Your task to perform on an android device: delete browsing data in the chrome app Image 0: 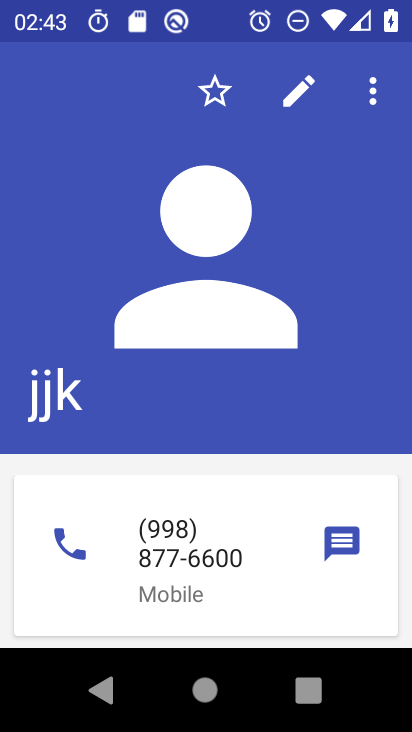
Step 0: press home button
Your task to perform on an android device: delete browsing data in the chrome app Image 1: 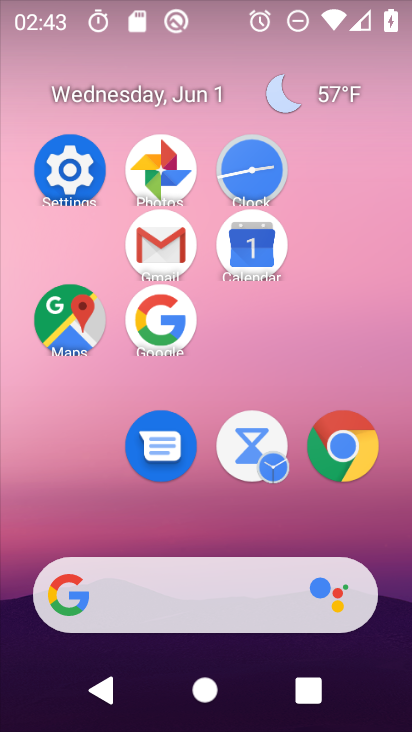
Step 1: click (358, 443)
Your task to perform on an android device: delete browsing data in the chrome app Image 2: 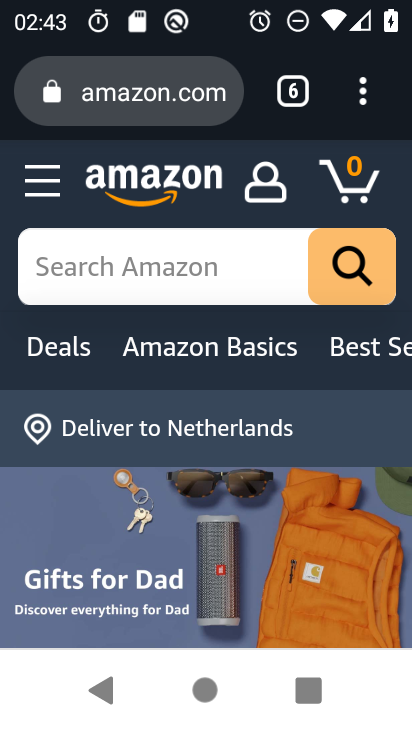
Step 2: click (355, 98)
Your task to perform on an android device: delete browsing data in the chrome app Image 3: 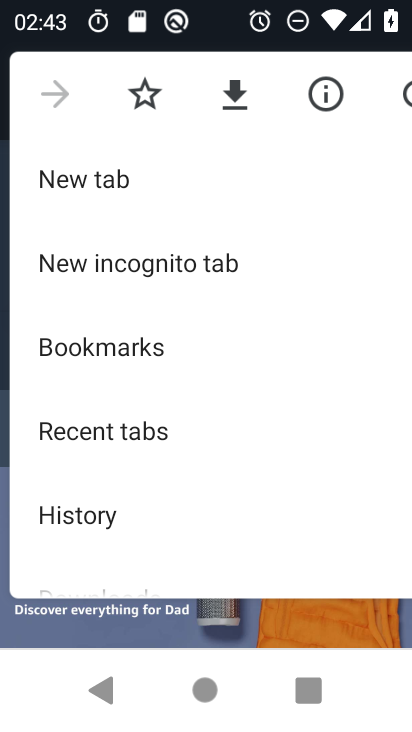
Step 3: drag from (177, 491) to (135, 158)
Your task to perform on an android device: delete browsing data in the chrome app Image 4: 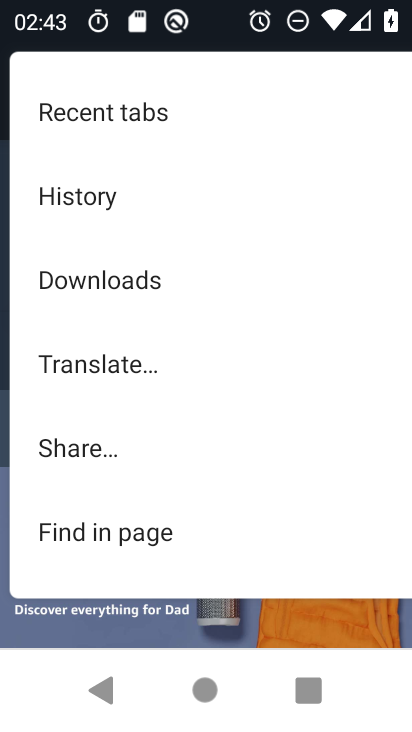
Step 4: drag from (170, 476) to (166, 151)
Your task to perform on an android device: delete browsing data in the chrome app Image 5: 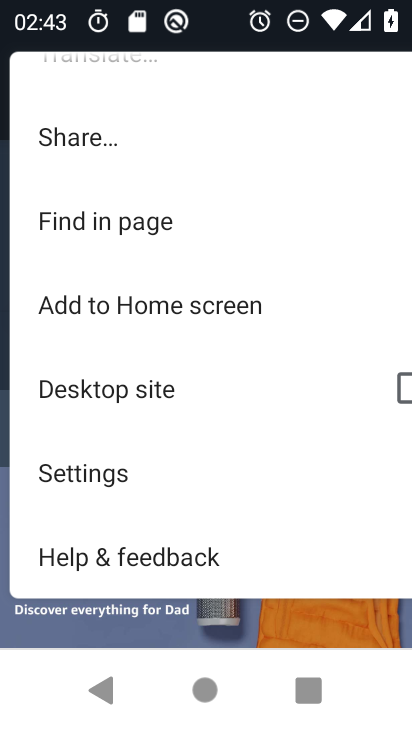
Step 5: click (173, 493)
Your task to perform on an android device: delete browsing data in the chrome app Image 6: 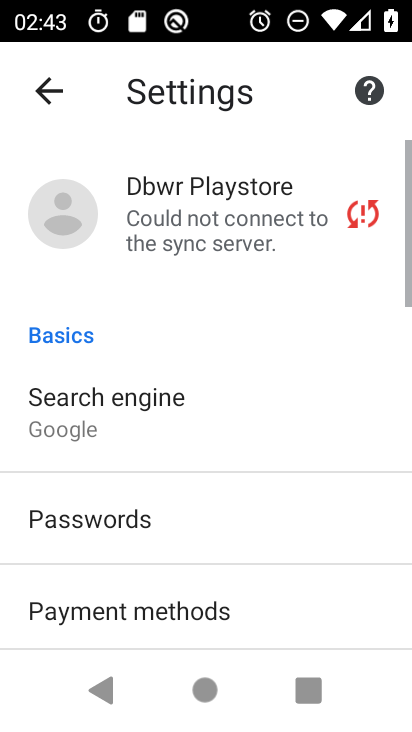
Step 6: drag from (171, 491) to (180, 181)
Your task to perform on an android device: delete browsing data in the chrome app Image 7: 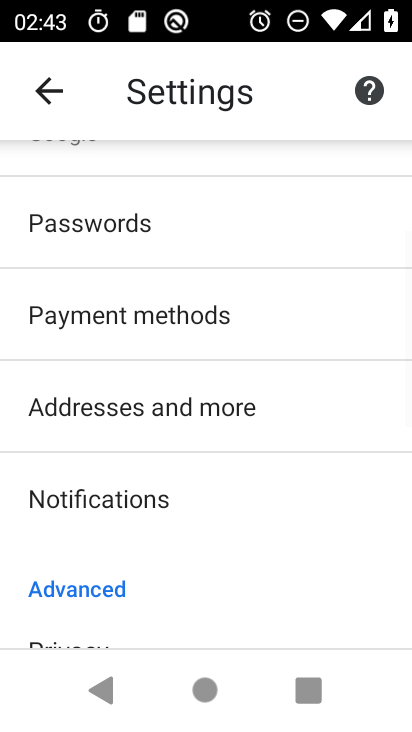
Step 7: drag from (243, 596) to (239, 214)
Your task to perform on an android device: delete browsing data in the chrome app Image 8: 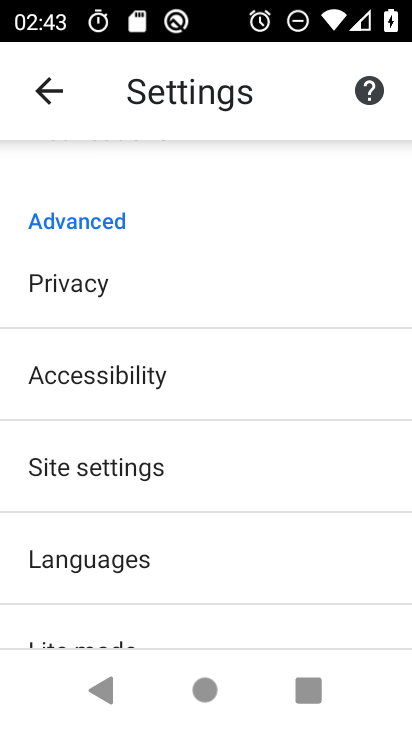
Step 8: drag from (237, 562) to (250, 195)
Your task to perform on an android device: delete browsing data in the chrome app Image 9: 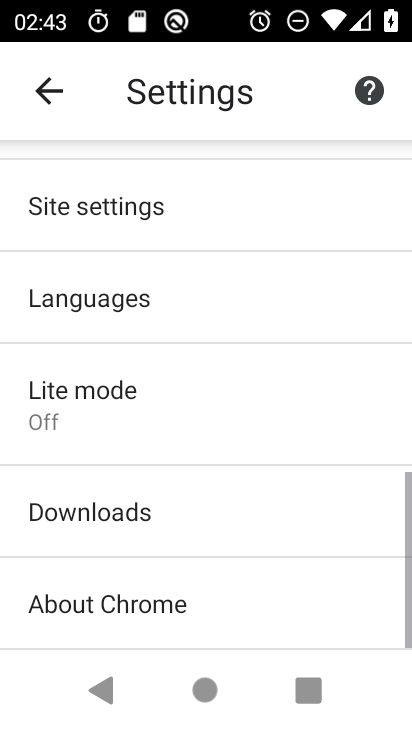
Step 9: drag from (244, 525) to (254, 213)
Your task to perform on an android device: delete browsing data in the chrome app Image 10: 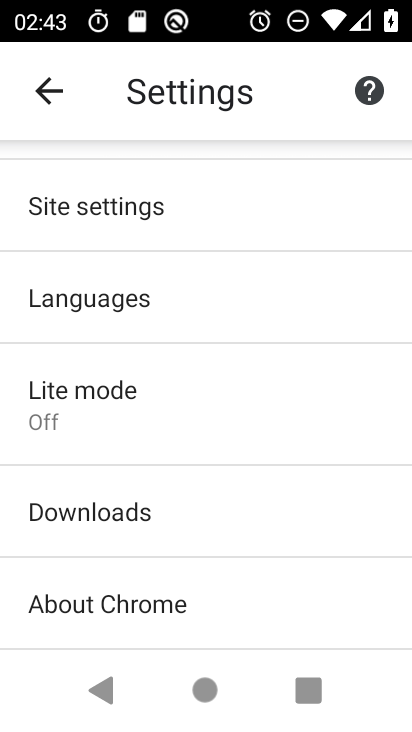
Step 10: drag from (243, 237) to (235, 626)
Your task to perform on an android device: delete browsing data in the chrome app Image 11: 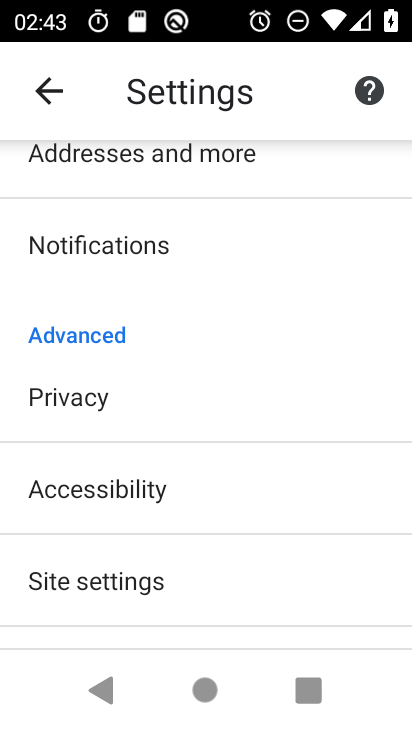
Step 11: click (165, 386)
Your task to perform on an android device: delete browsing data in the chrome app Image 12: 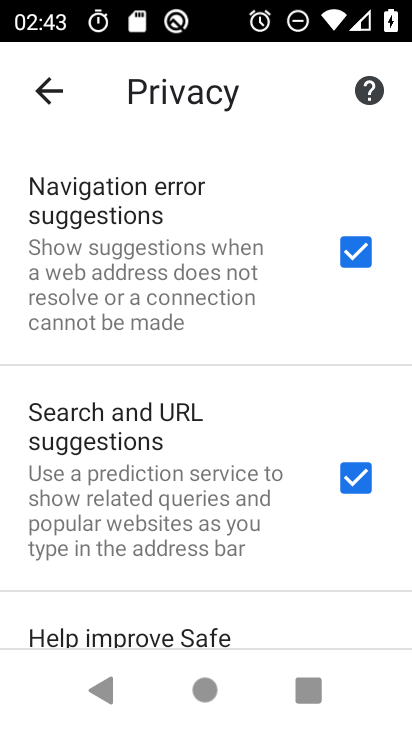
Step 12: drag from (253, 581) to (214, 360)
Your task to perform on an android device: delete browsing data in the chrome app Image 13: 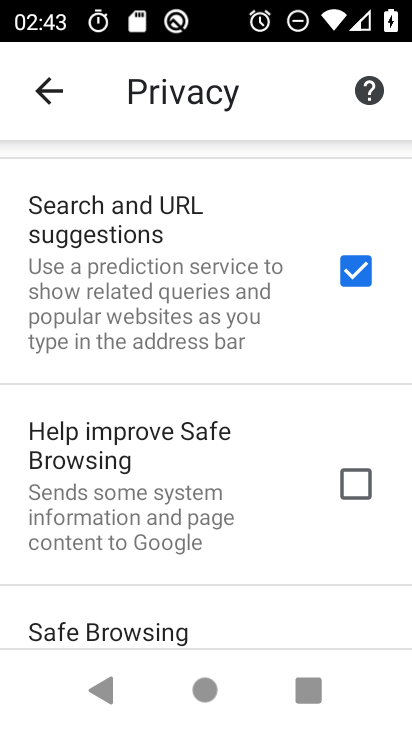
Step 13: drag from (188, 552) to (241, 281)
Your task to perform on an android device: delete browsing data in the chrome app Image 14: 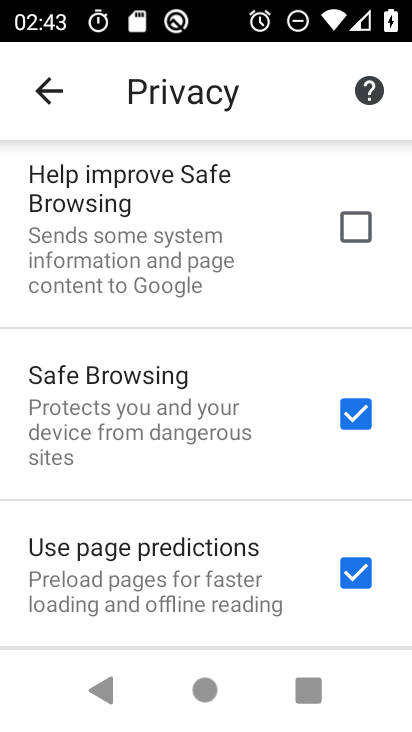
Step 14: drag from (225, 623) to (245, 334)
Your task to perform on an android device: delete browsing data in the chrome app Image 15: 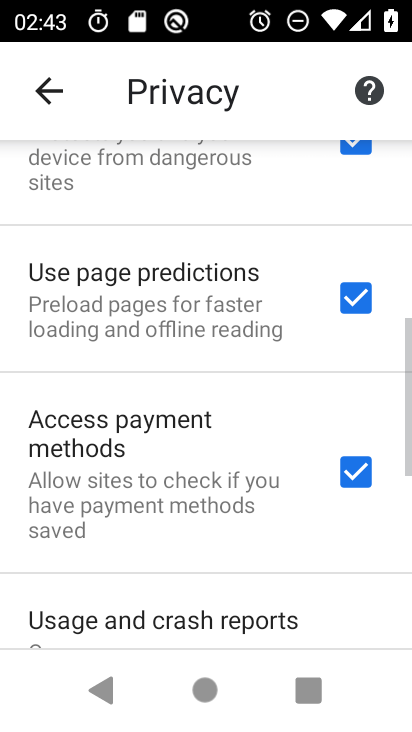
Step 15: click (288, 308)
Your task to perform on an android device: delete browsing data in the chrome app Image 16: 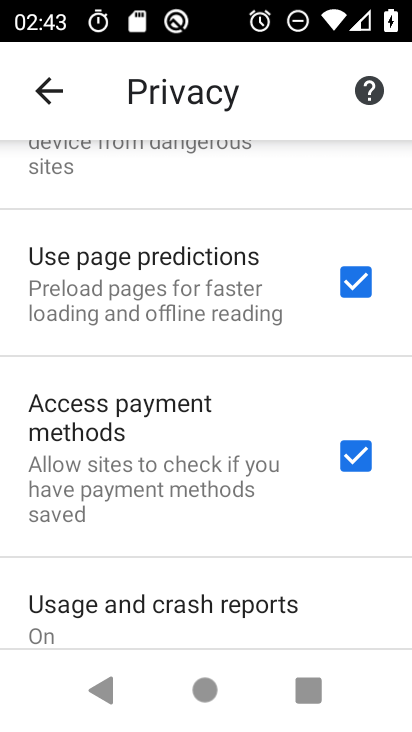
Step 16: drag from (272, 571) to (279, 251)
Your task to perform on an android device: delete browsing data in the chrome app Image 17: 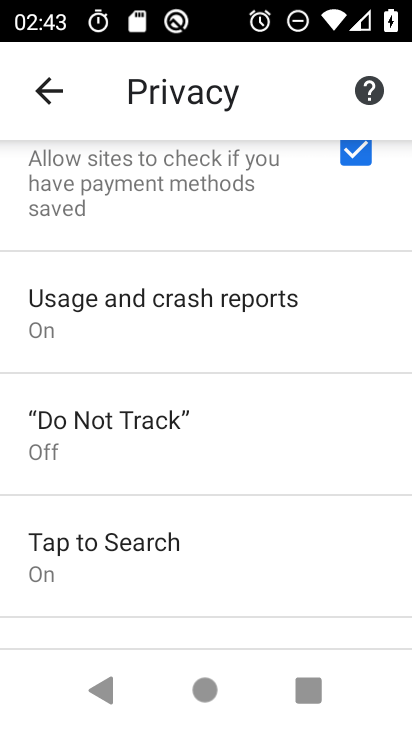
Step 17: drag from (297, 566) to (275, 240)
Your task to perform on an android device: delete browsing data in the chrome app Image 18: 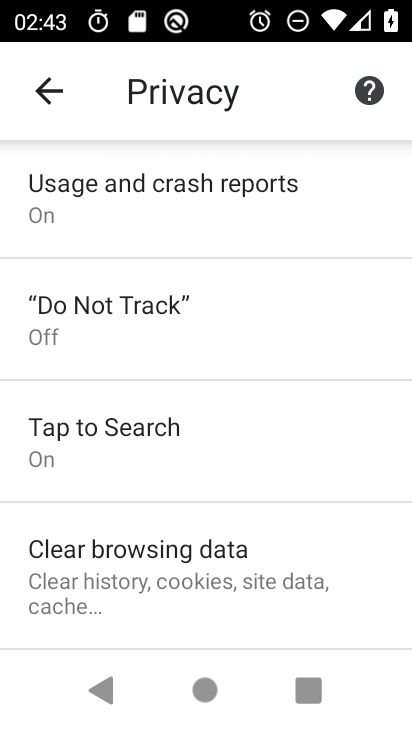
Step 18: click (261, 576)
Your task to perform on an android device: delete browsing data in the chrome app Image 19: 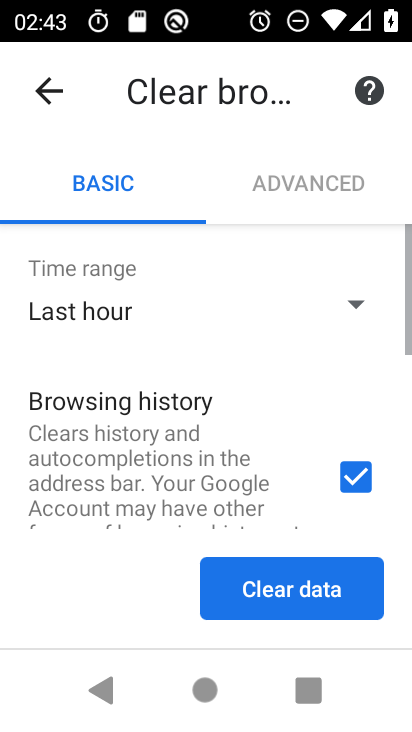
Step 19: drag from (268, 457) to (260, 216)
Your task to perform on an android device: delete browsing data in the chrome app Image 20: 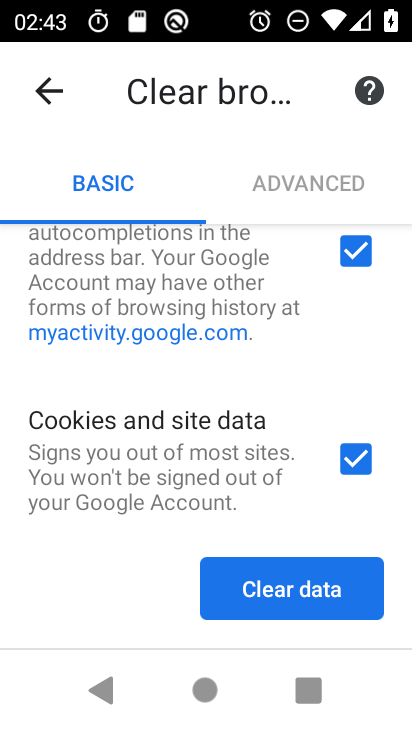
Step 20: drag from (153, 522) to (150, 121)
Your task to perform on an android device: delete browsing data in the chrome app Image 21: 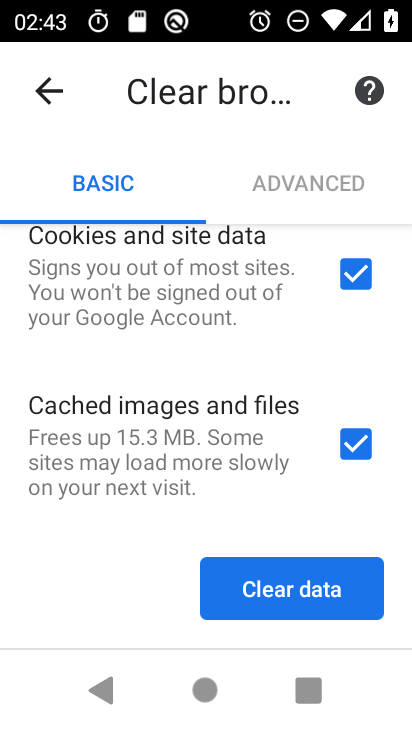
Step 21: drag from (171, 443) to (171, 168)
Your task to perform on an android device: delete browsing data in the chrome app Image 22: 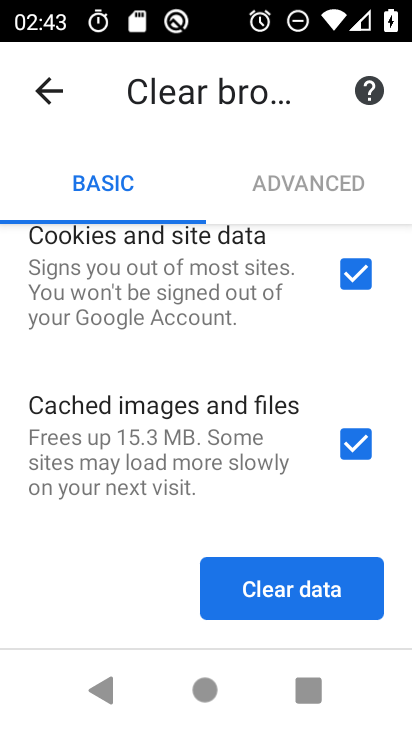
Step 22: click (260, 574)
Your task to perform on an android device: delete browsing data in the chrome app Image 23: 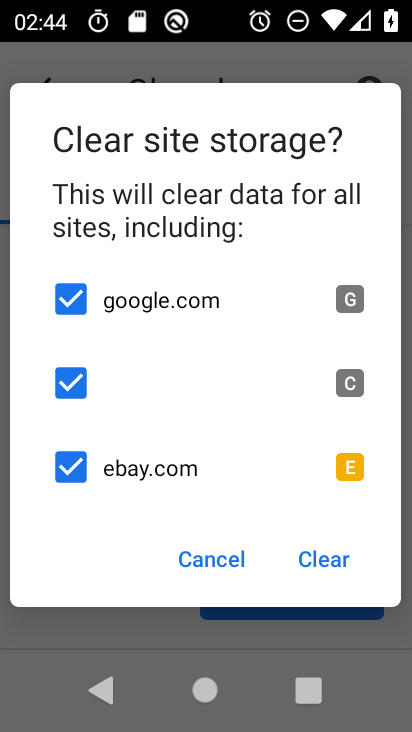
Step 23: click (311, 557)
Your task to perform on an android device: delete browsing data in the chrome app Image 24: 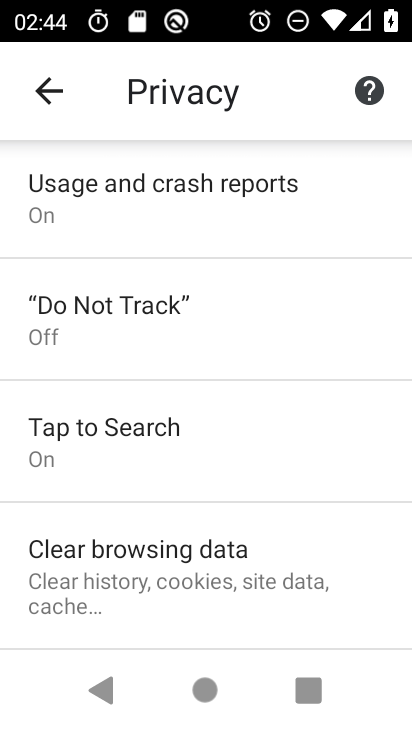
Step 24: task complete